Your task to perform on an android device: turn vacation reply on in the gmail app Image 0: 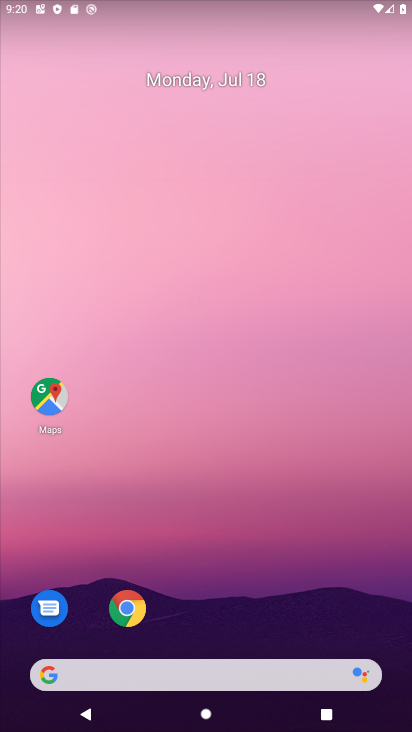
Step 0: drag from (186, 594) to (181, 48)
Your task to perform on an android device: turn vacation reply on in the gmail app Image 1: 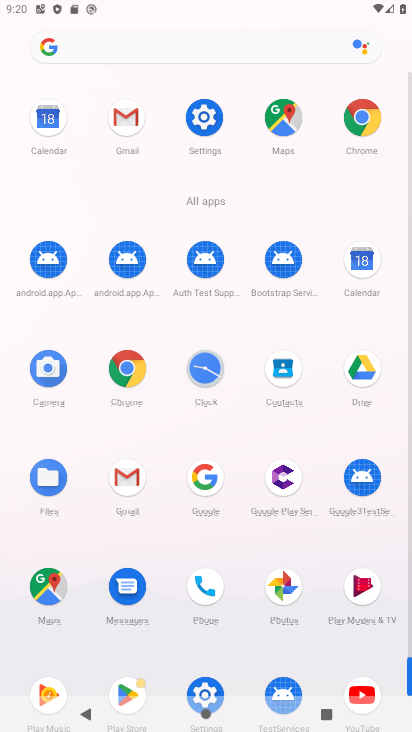
Step 1: click (122, 481)
Your task to perform on an android device: turn vacation reply on in the gmail app Image 2: 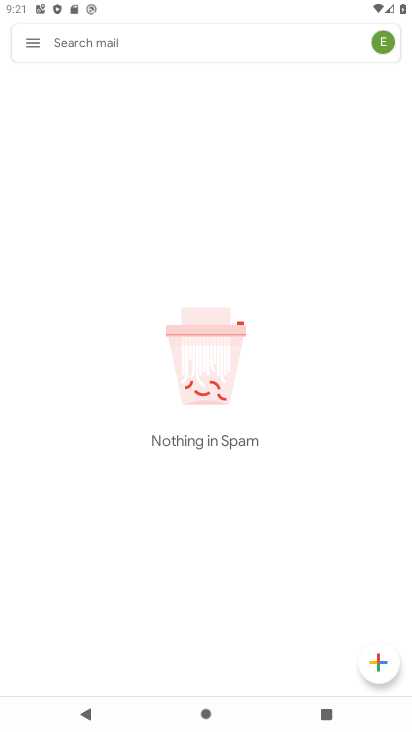
Step 2: click (30, 32)
Your task to perform on an android device: turn vacation reply on in the gmail app Image 3: 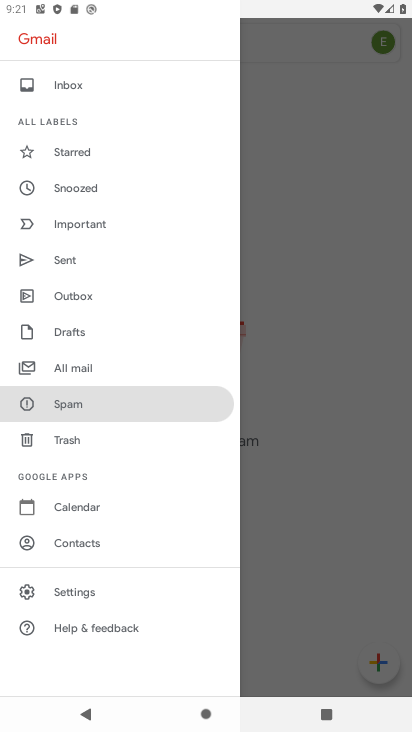
Step 3: click (80, 591)
Your task to perform on an android device: turn vacation reply on in the gmail app Image 4: 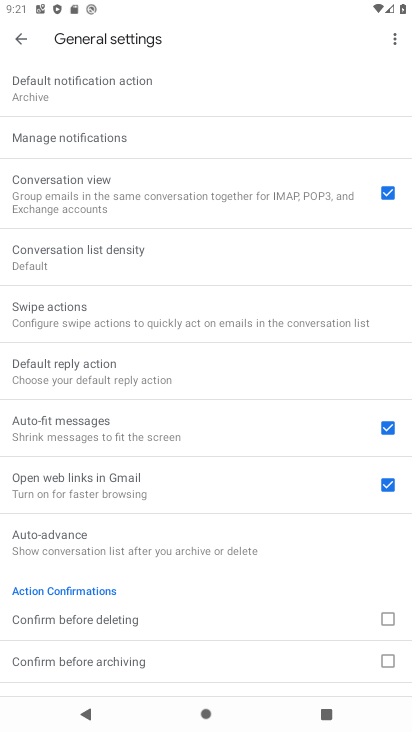
Step 4: drag from (156, 559) to (165, 398)
Your task to perform on an android device: turn vacation reply on in the gmail app Image 5: 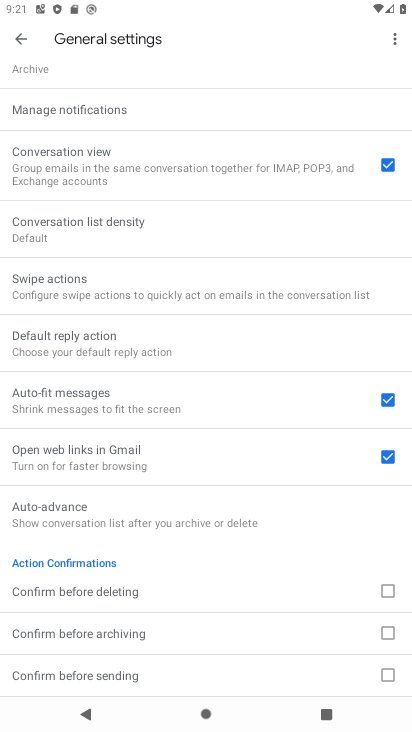
Step 5: click (16, 36)
Your task to perform on an android device: turn vacation reply on in the gmail app Image 6: 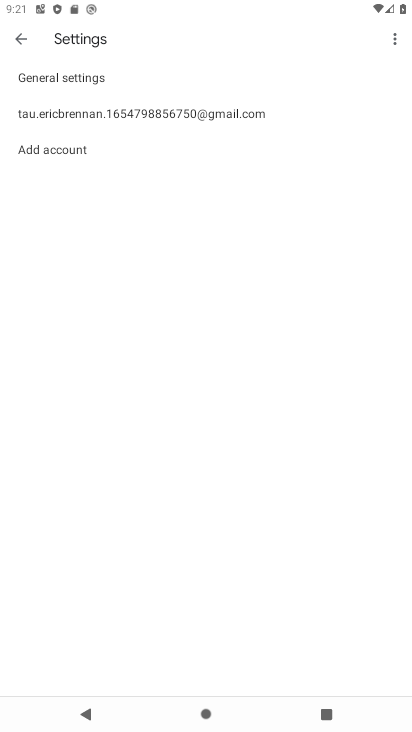
Step 6: click (121, 129)
Your task to perform on an android device: turn vacation reply on in the gmail app Image 7: 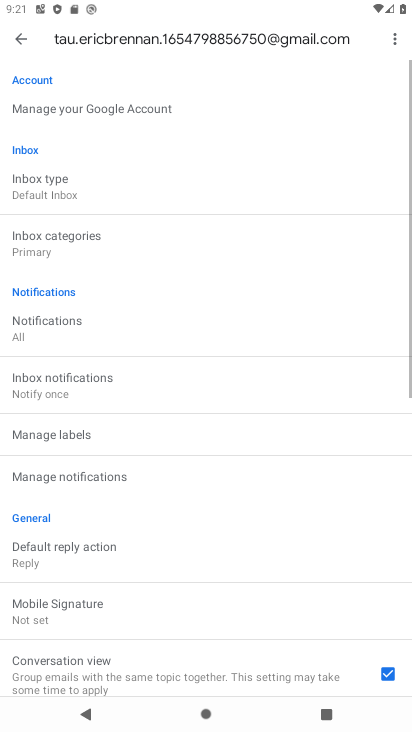
Step 7: drag from (141, 592) to (185, 182)
Your task to perform on an android device: turn vacation reply on in the gmail app Image 8: 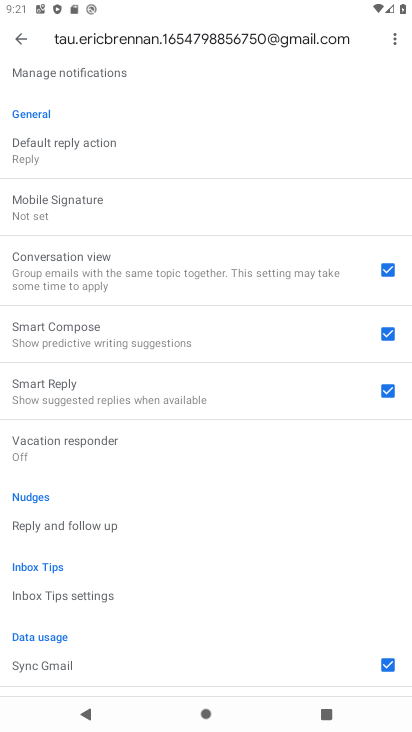
Step 8: click (99, 452)
Your task to perform on an android device: turn vacation reply on in the gmail app Image 9: 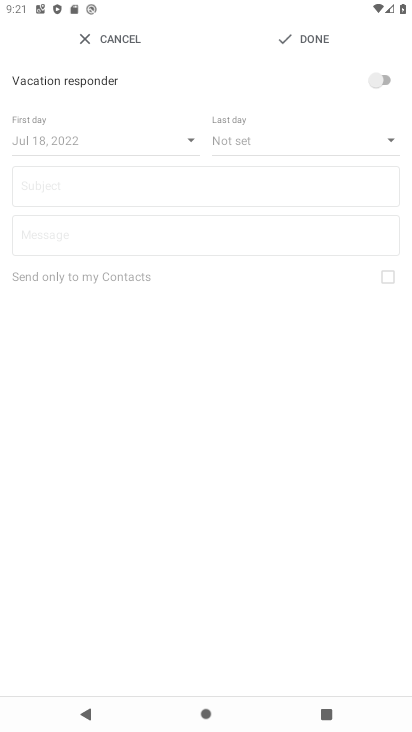
Step 9: click (392, 74)
Your task to perform on an android device: turn vacation reply on in the gmail app Image 10: 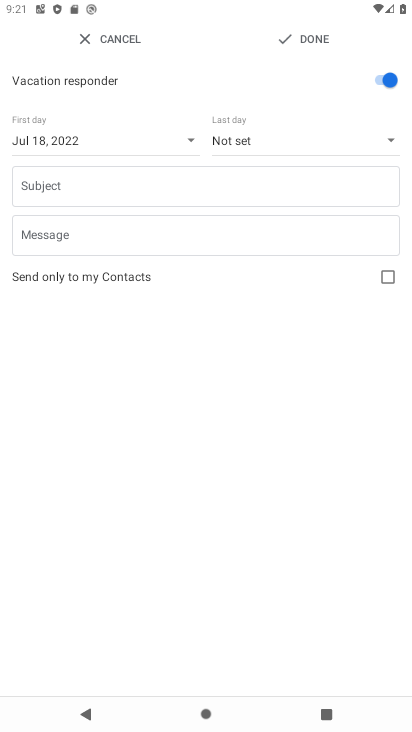
Step 10: click (287, 38)
Your task to perform on an android device: turn vacation reply on in the gmail app Image 11: 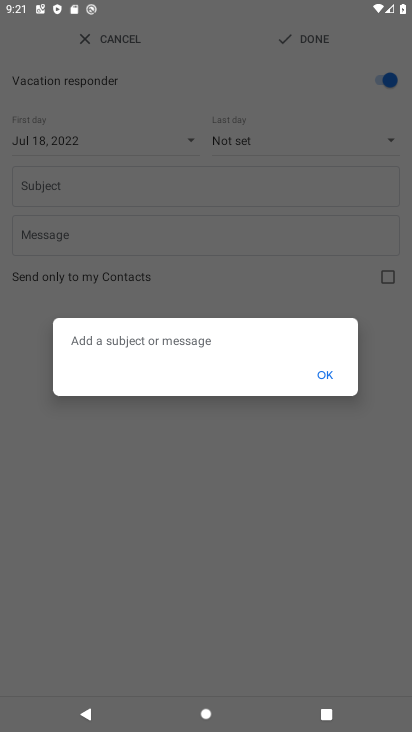
Step 11: click (324, 372)
Your task to perform on an android device: turn vacation reply on in the gmail app Image 12: 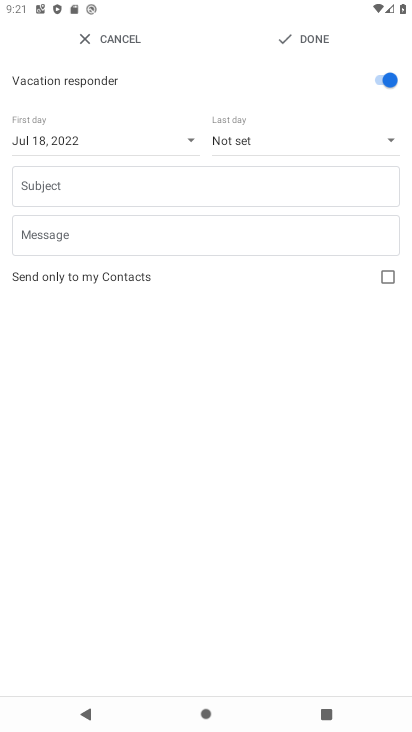
Step 12: click (44, 230)
Your task to perform on an android device: turn vacation reply on in the gmail app Image 13: 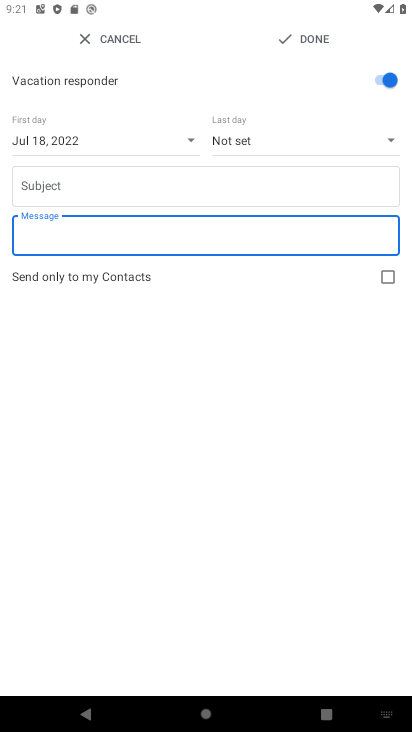
Step 13: type "Message"
Your task to perform on an android device: turn vacation reply on in the gmail app Image 14: 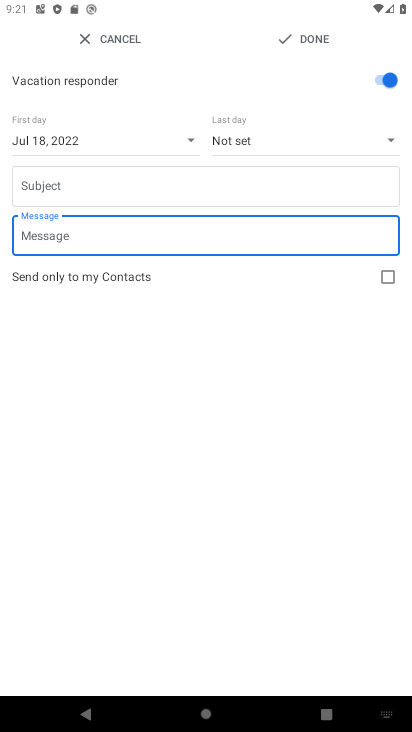
Step 14: click (307, 36)
Your task to perform on an android device: turn vacation reply on in the gmail app Image 15: 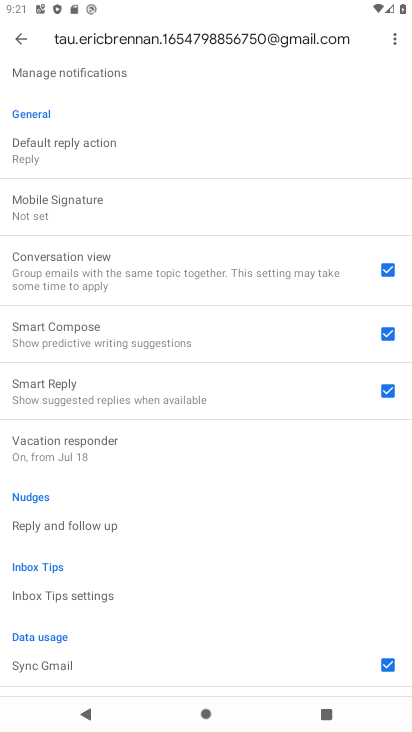
Step 15: task complete